Your task to perform on an android device: Open Yahoo.com Image 0: 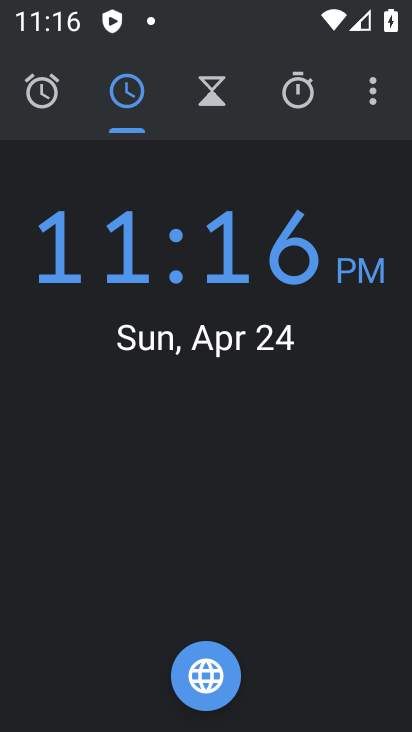
Step 0: press home button
Your task to perform on an android device: Open Yahoo.com Image 1: 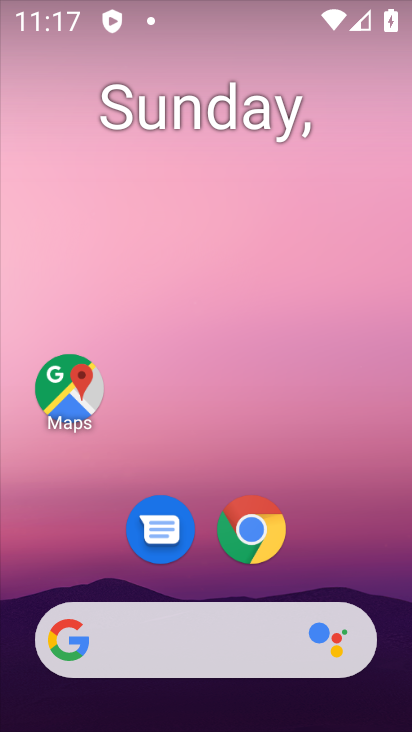
Step 1: click (253, 518)
Your task to perform on an android device: Open Yahoo.com Image 2: 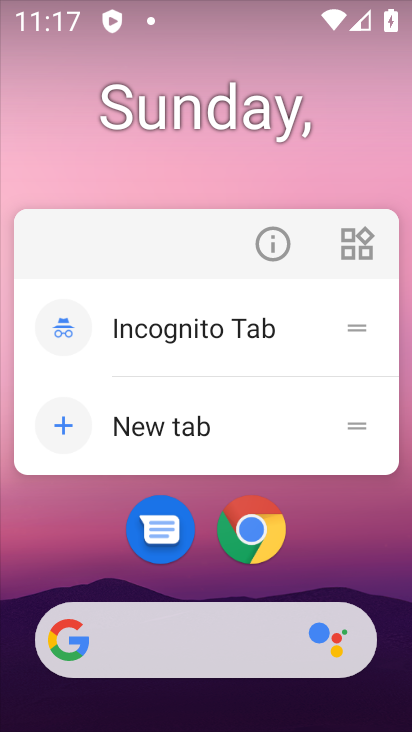
Step 2: click (253, 518)
Your task to perform on an android device: Open Yahoo.com Image 3: 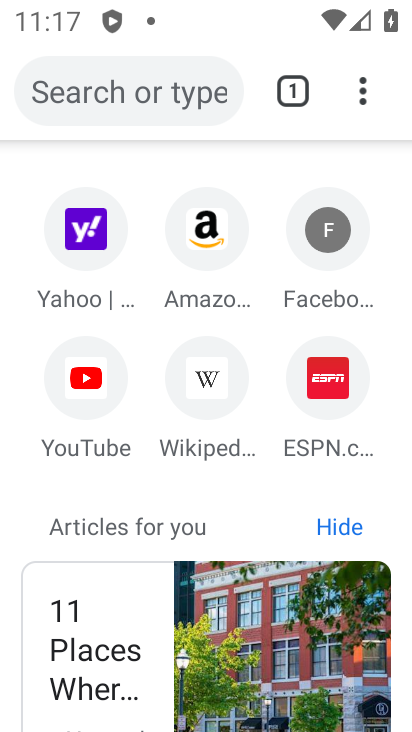
Step 3: click (93, 225)
Your task to perform on an android device: Open Yahoo.com Image 4: 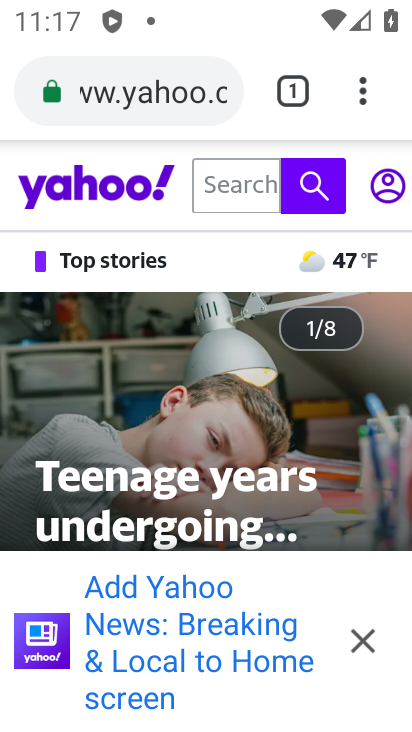
Step 4: task complete